Your task to perform on an android device: set the timer Image 0: 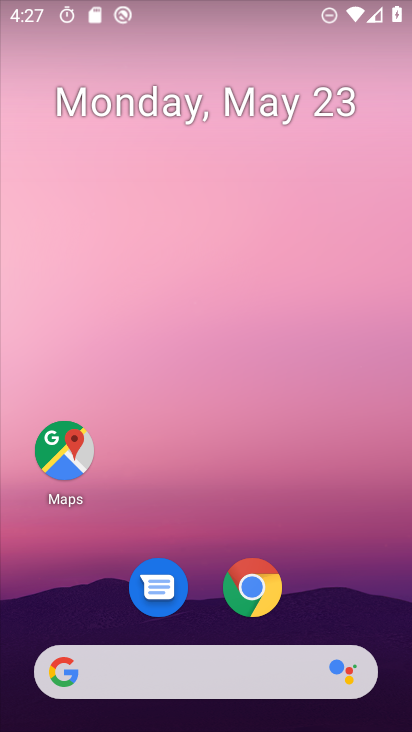
Step 0: drag from (204, 614) to (263, 0)
Your task to perform on an android device: set the timer Image 1: 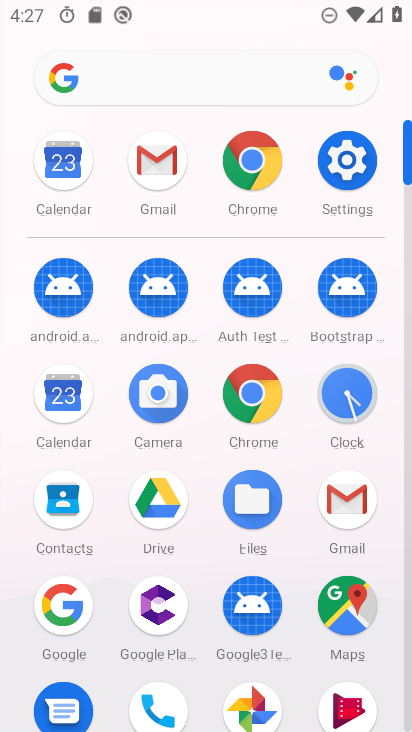
Step 1: click (356, 396)
Your task to perform on an android device: set the timer Image 2: 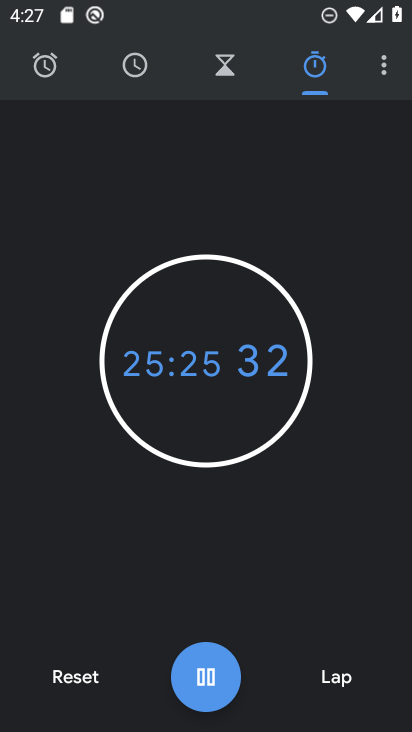
Step 2: click (88, 660)
Your task to perform on an android device: set the timer Image 3: 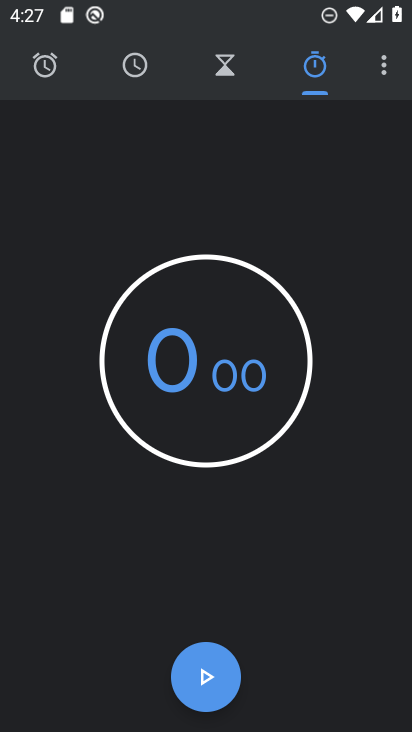
Step 3: click (221, 78)
Your task to perform on an android device: set the timer Image 4: 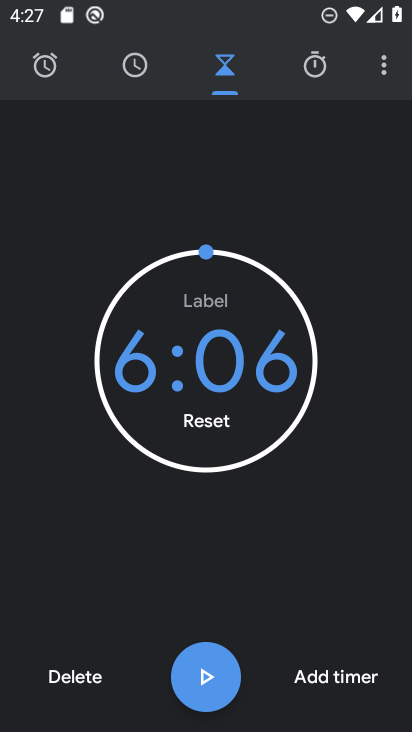
Step 4: click (73, 676)
Your task to perform on an android device: set the timer Image 5: 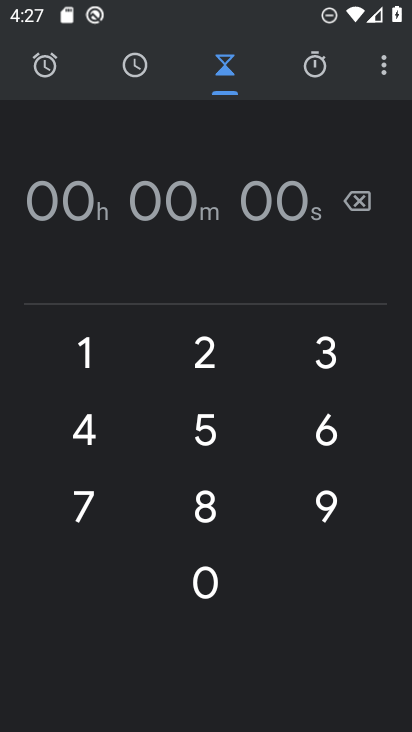
Step 5: click (211, 513)
Your task to perform on an android device: set the timer Image 6: 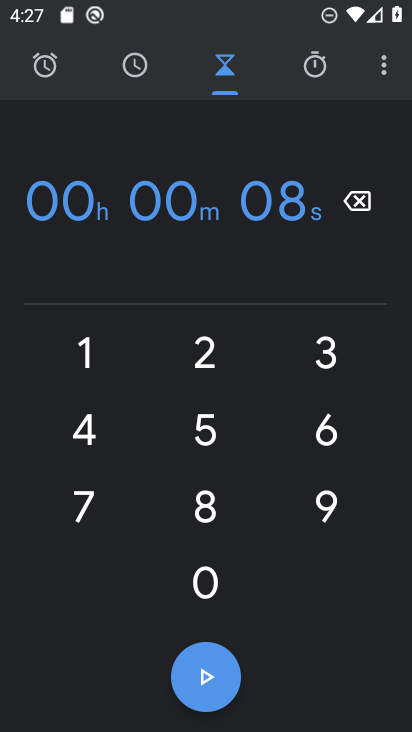
Step 6: click (324, 349)
Your task to perform on an android device: set the timer Image 7: 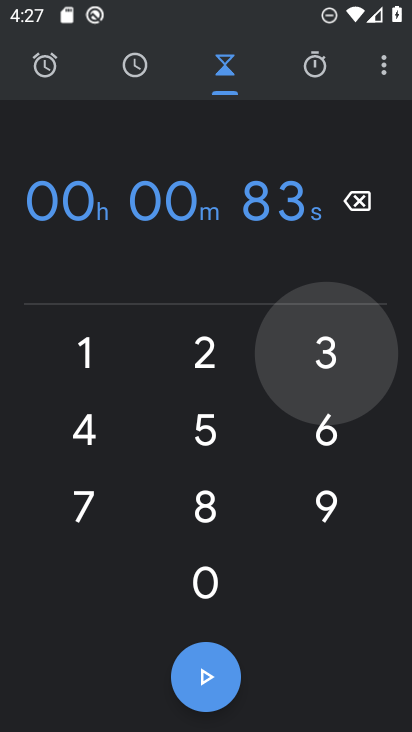
Step 7: click (324, 512)
Your task to perform on an android device: set the timer Image 8: 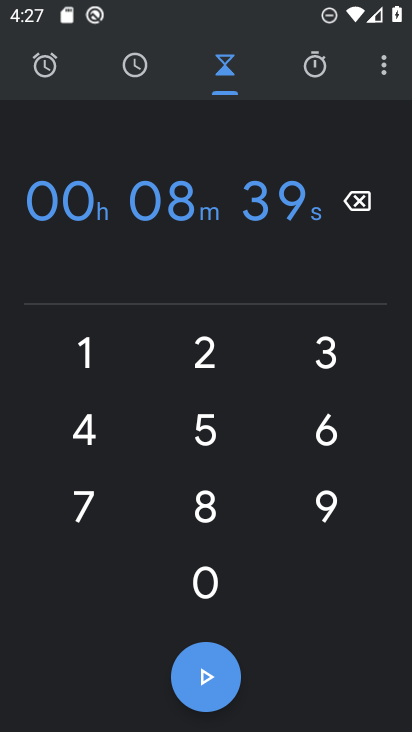
Step 8: click (213, 681)
Your task to perform on an android device: set the timer Image 9: 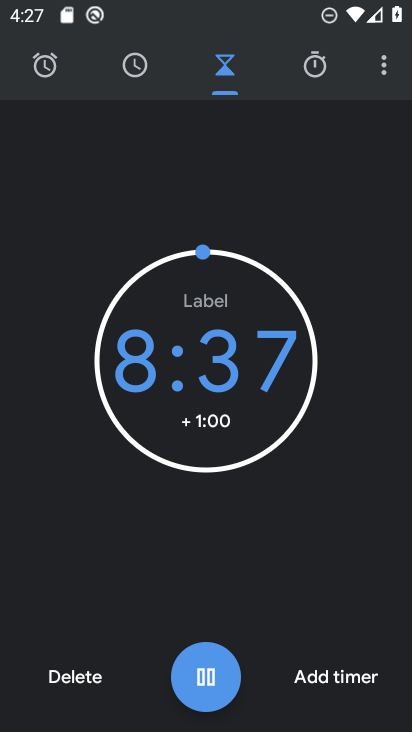
Step 9: task complete